Your task to perform on an android device: open app "DuckDuckGo Privacy Browser" (install if not already installed) and enter user name: "cleaving@outlook.com" and password: "freighters" Image 0: 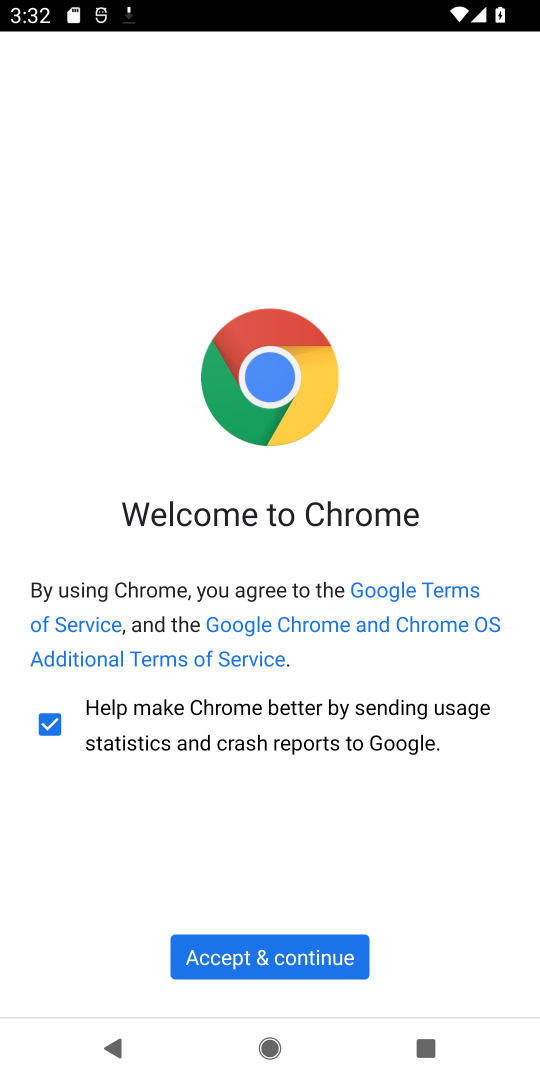
Step 0: press home button
Your task to perform on an android device: open app "DuckDuckGo Privacy Browser" (install if not already installed) and enter user name: "cleaving@outlook.com" and password: "freighters" Image 1: 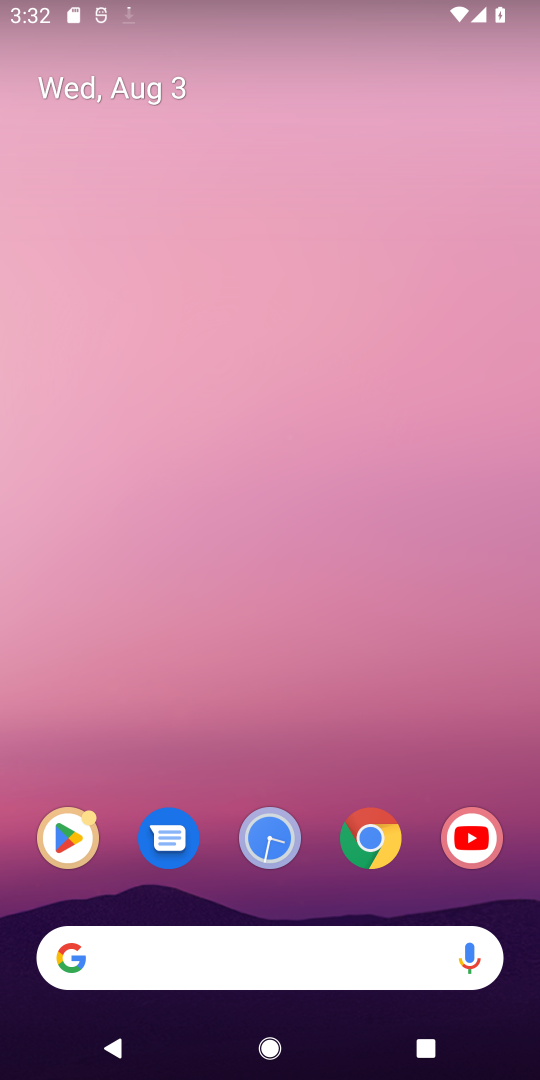
Step 1: click (53, 840)
Your task to perform on an android device: open app "DuckDuckGo Privacy Browser" (install if not already installed) and enter user name: "cleaving@outlook.com" and password: "freighters" Image 2: 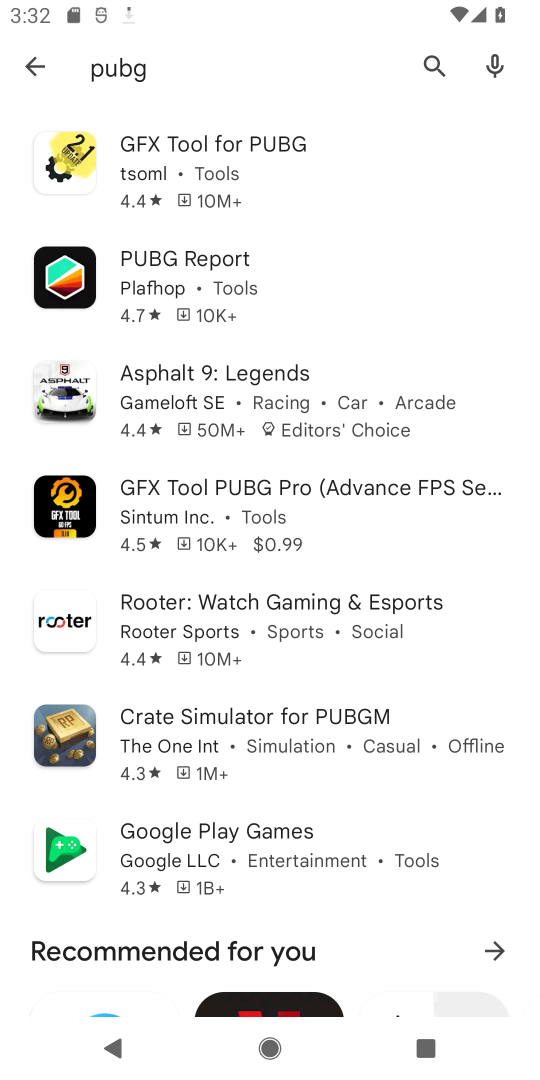
Step 2: click (429, 66)
Your task to perform on an android device: open app "DuckDuckGo Privacy Browser" (install if not already installed) and enter user name: "cleaving@outlook.com" and password: "freighters" Image 3: 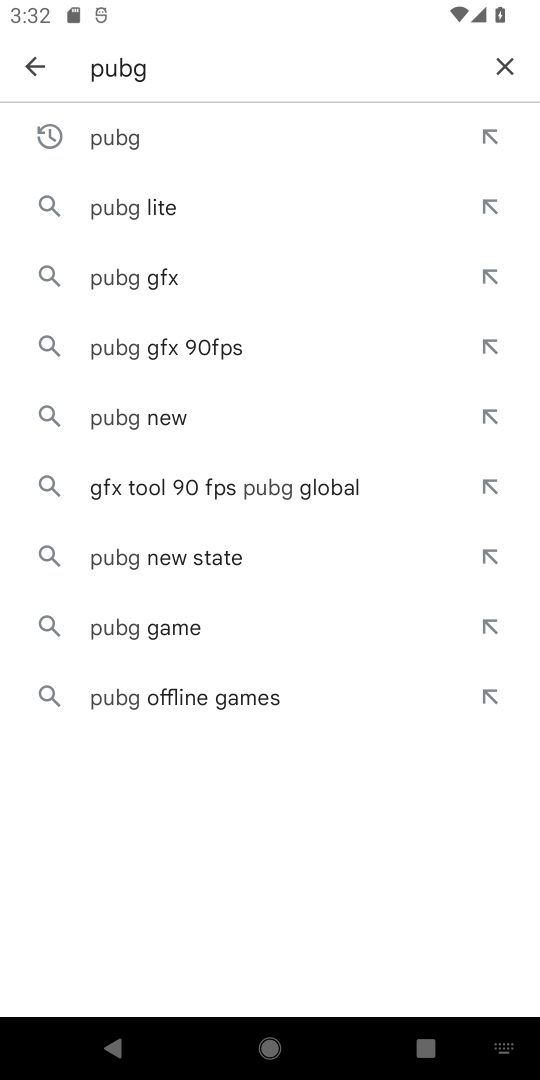
Step 3: click (504, 67)
Your task to perform on an android device: open app "DuckDuckGo Privacy Browser" (install if not already installed) and enter user name: "cleaving@outlook.com" and password: "freighters" Image 4: 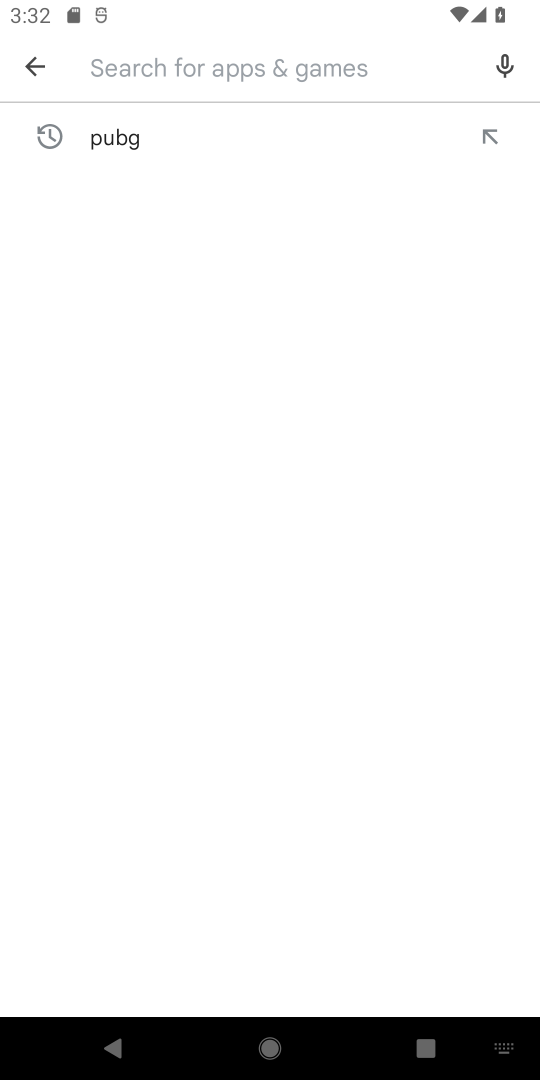
Step 4: type "duckduckgo"
Your task to perform on an android device: open app "DuckDuckGo Privacy Browser" (install if not already installed) and enter user name: "cleaving@outlook.com" and password: "freighters" Image 5: 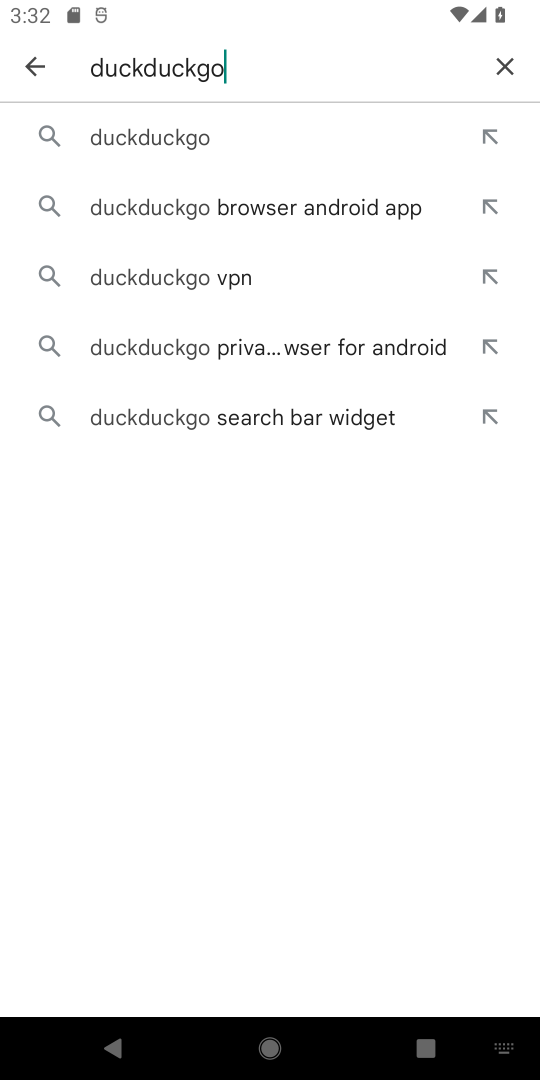
Step 5: click (329, 213)
Your task to perform on an android device: open app "DuckDuckGo Privacy Browser" (install if not already installed) and enter user name: "cleaving@outlook.com" and password: "freighters" Image 6: 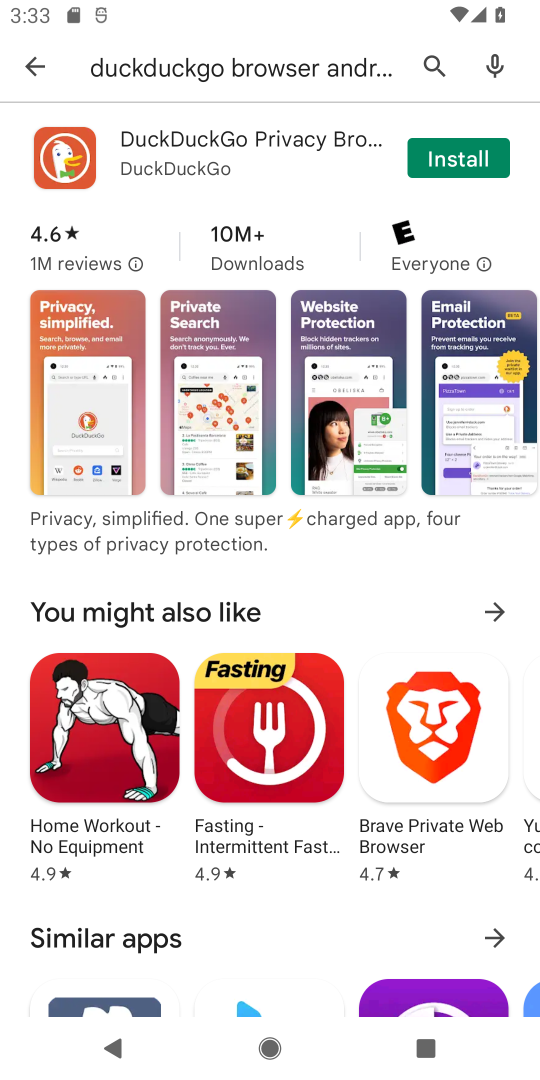
Step 6: click (451, 168)
Your task to perform on an android device: open app "DuckDuckGo Privacy Browser" (install if not already installed) and enter user name: "cleaving@outlook.com" and password: "freighters" Image 7: 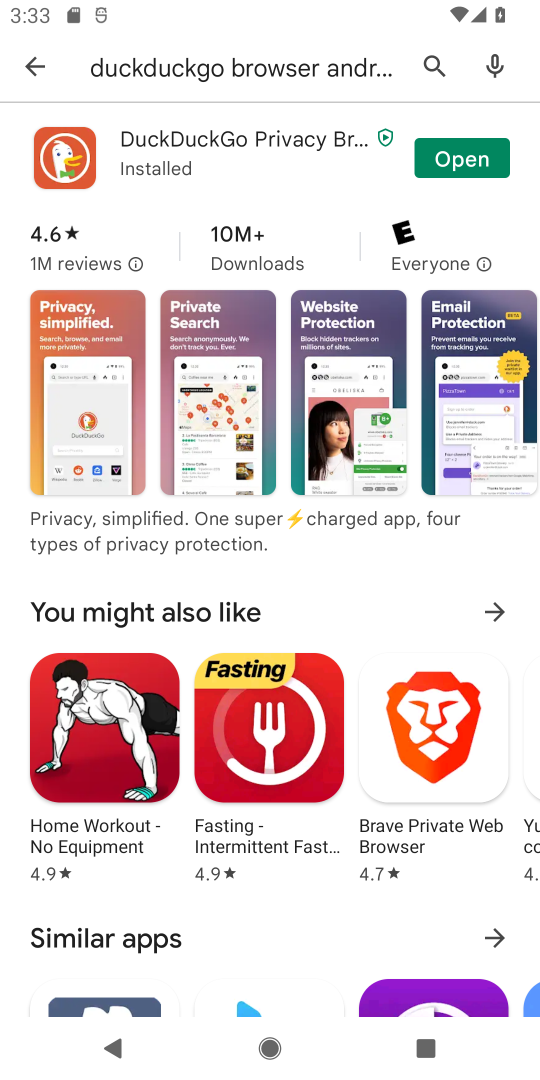
Step 7: click (448, 173)
Your task to perform on an android device: open app "DuckDuckGo Privacy Browser" (install if not already installed) and enter user name: "cleaving@outlook.com" and password: "freighters" Image 8: 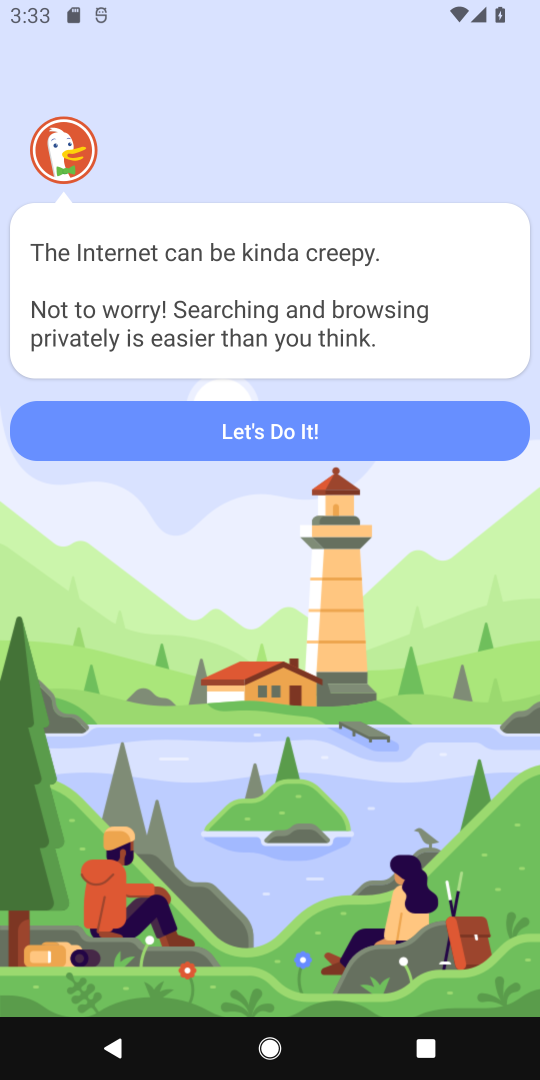
Step 8: click (259, 430)
Your task to perform on an android device: open app "DuckDuckGo Privacy Browser" (install if not already installed) and enter user name: "cleaving@outlook.com" and password: "freighters" Image 9: 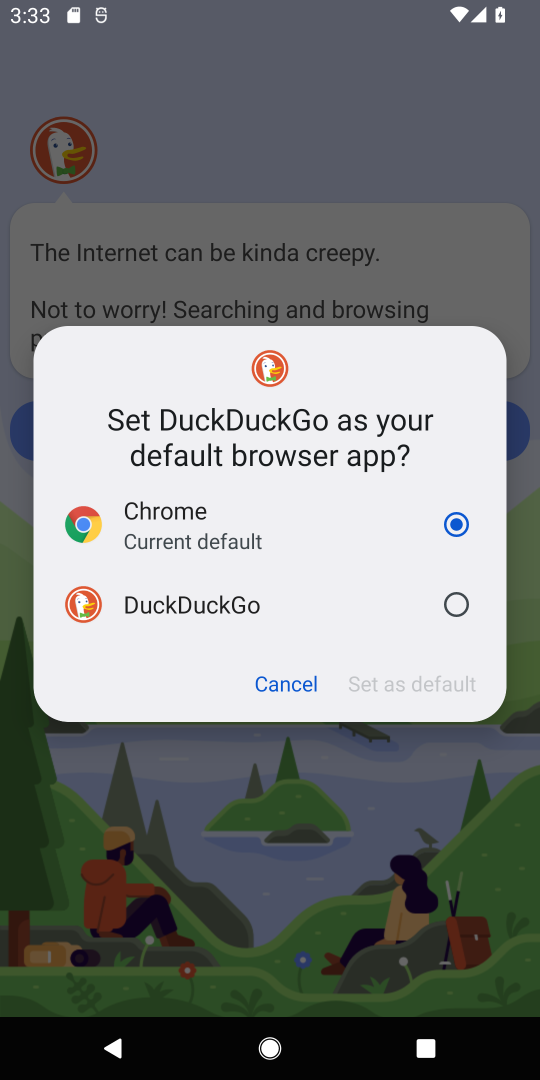
Step 9: click (466, 602)
Your task to perform on an android device: open app "DuckDuckGo Privacy Browser" (install if not already installed) and enter user name: "cleaving@outlook.com" and password: "freighters" Image 10: 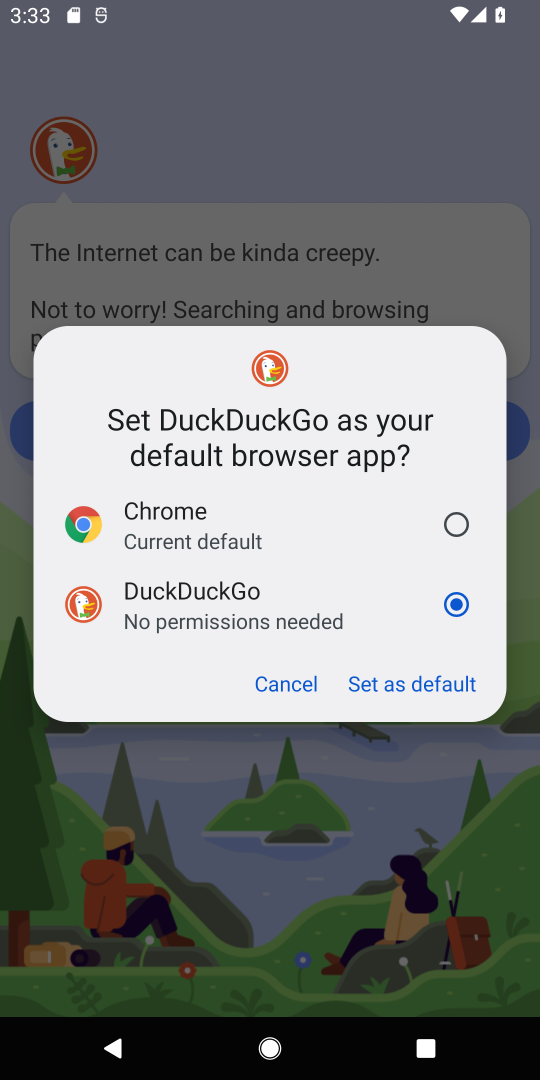
Step 10: click (307, 679)
Your task to perform on an android device: open app "DuckDuckGo Privacy Browser" (install if not already installed) and enter user name: "cleaving@outlook.com" and password: "freighters" Image 11: 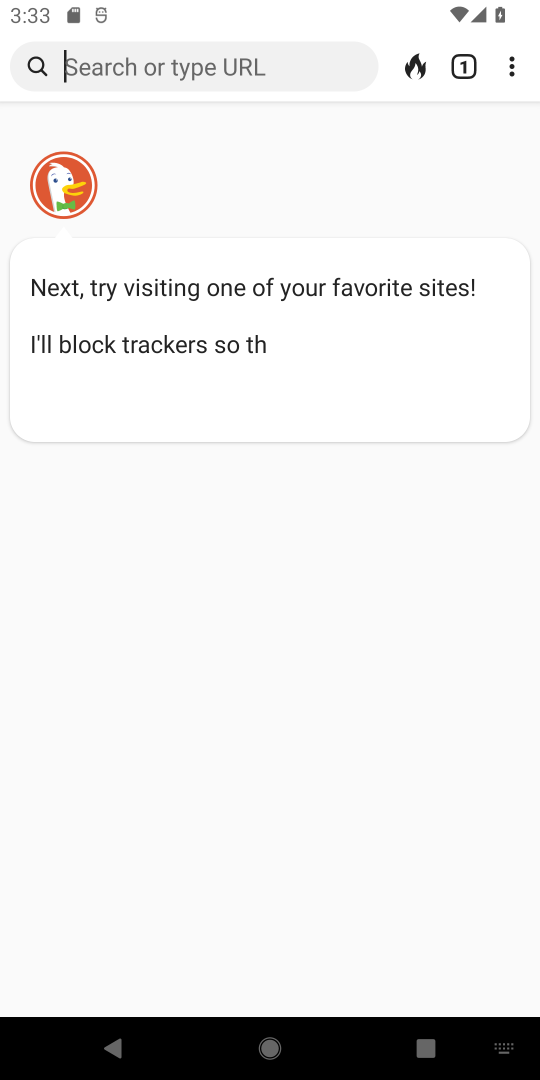
Step 11: click (341, 509)
Your task to perform on an android device: open app "DuckDuckGo Privacy Browser" (install if not already installed) and enter user name: "cleaving@outlook.com" and password: "freighters" Image 12: 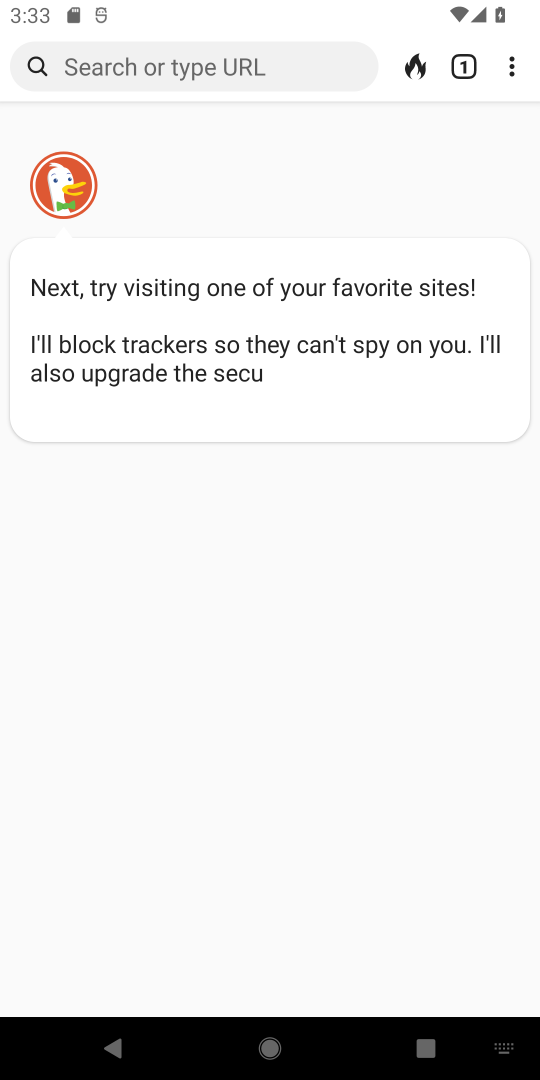
Step 12: task complete